Your task to perform on an android device: turn on priority inbox in the gmail app Image 0: 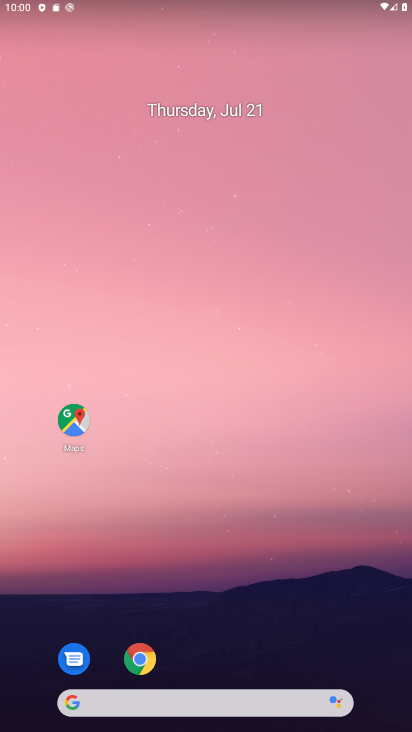
Step 0: drag from (223, 722) to (253, 259)
Your task to perform on an android device: turn on priority inbox in the gmail app Image 1: 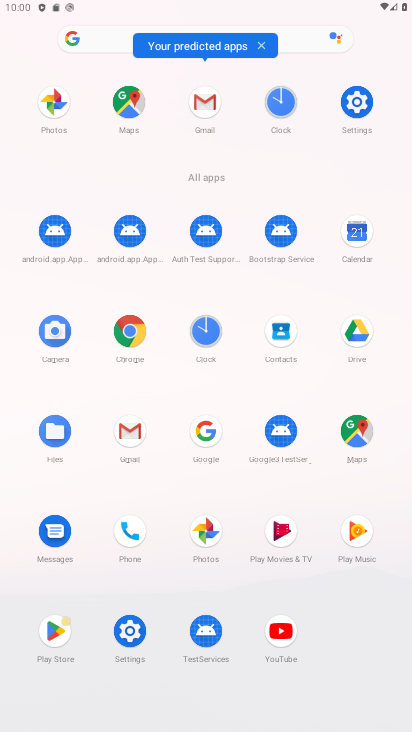
Step 1: click (132, 427)
Your task to perform on an android device: turn on priority inbox in the gmail app Image 2: 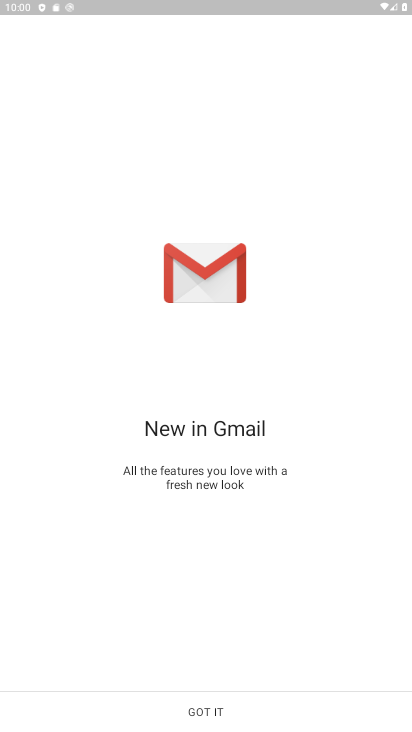
Step 2: click (199, 707)
Your task to perform on an android device: turn on priority inbox in the gmail app Image 3: 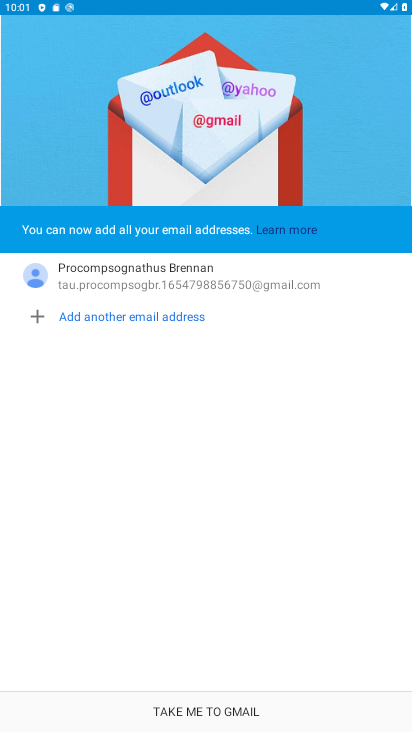
Step 3: click (215, 713)
Your task to perform on an android device: turn on priority inbox in the gmail app Image 4: 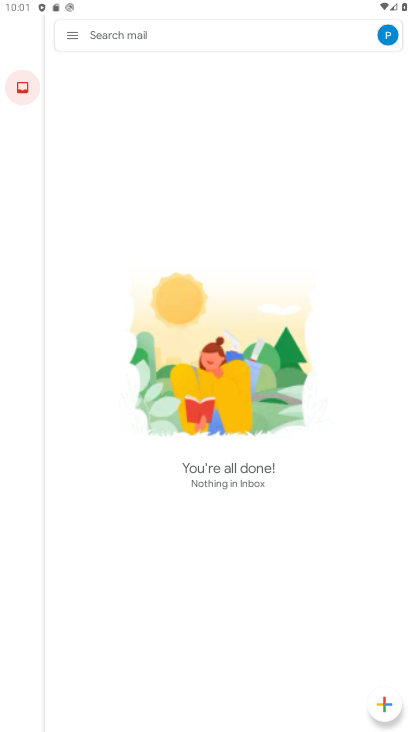
Step 4: click (72, 35)
Your task to perform on an android device: turn on priority inbox in the gmail app Image 5: 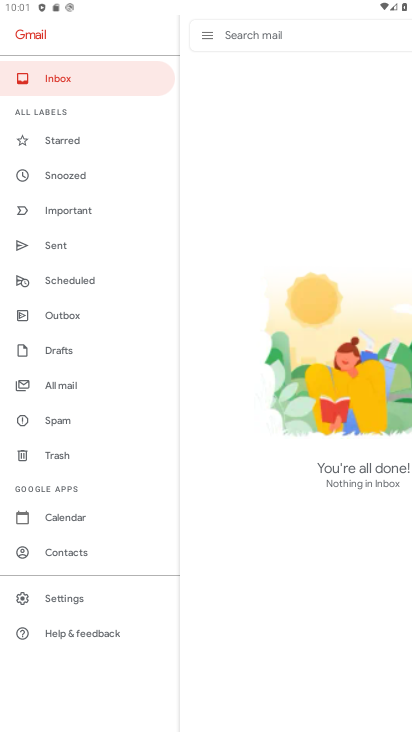
Step 5: click (71, 597)
Your task to perform on an android device: turn on priority inbox in the gmail app Image 6: 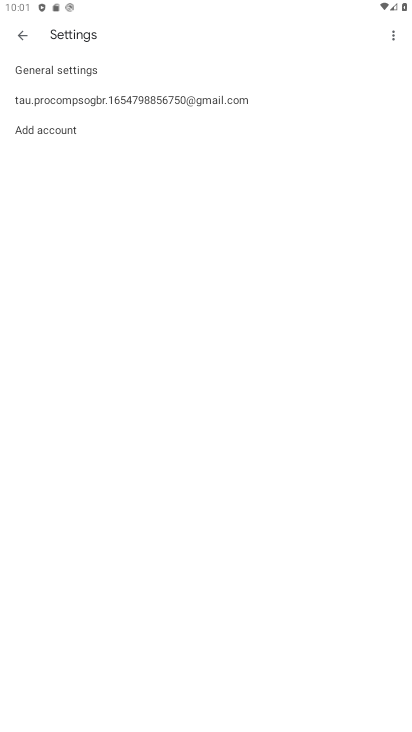
Step 6: click (146, 99)
Your task to perform on an android device: turn on priority inbox in the gmail app Image 7: 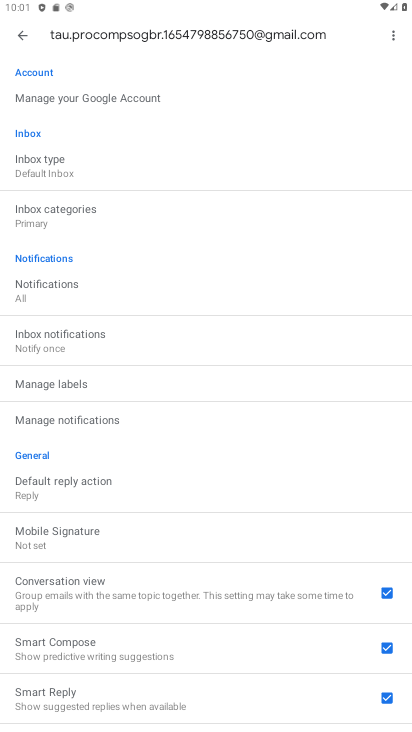
Step 7: click (52, 169)
Your task to perform on an android device: turn on priority inbox in the gmail app Image 8: 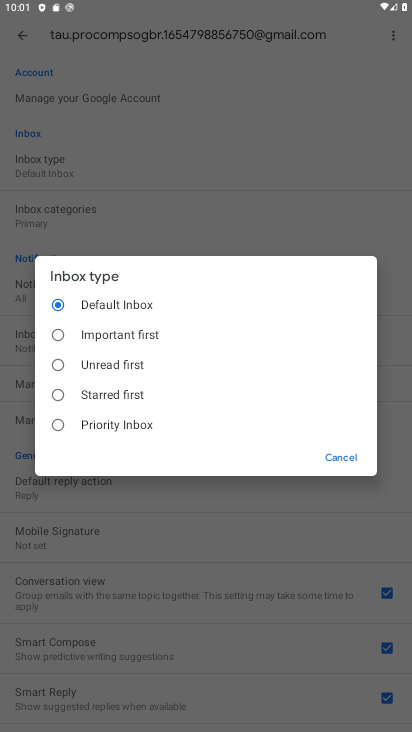
Step 8: click (51, 421)
Your task to perform on an android device: turn on priority inbox in the gmail app Image 9: 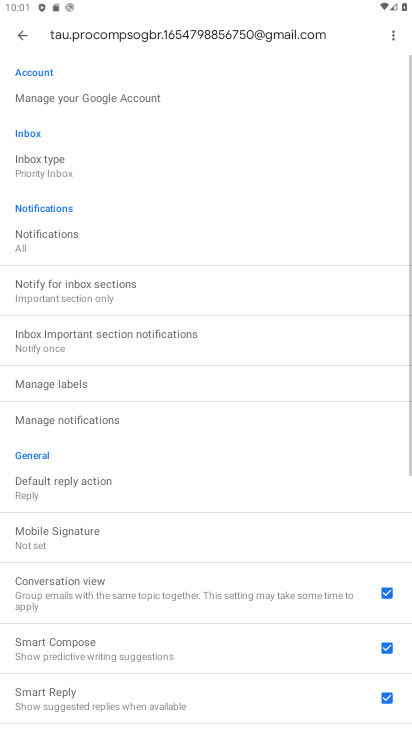
Step 9: task complete